Your task to perform on an android device: Add lenovo thinkpad to the cart on costco, then select checkout. Image 0: 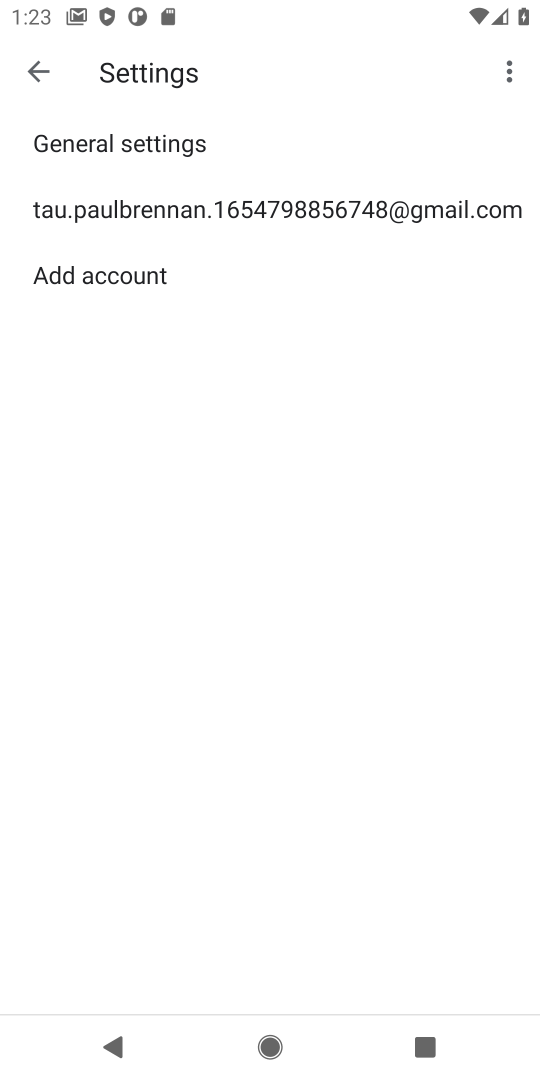
Step 0: press home button
Your task to perform on an android device: Add lenovo thinkpad to the cart on costco, then select checkout. Image 1: 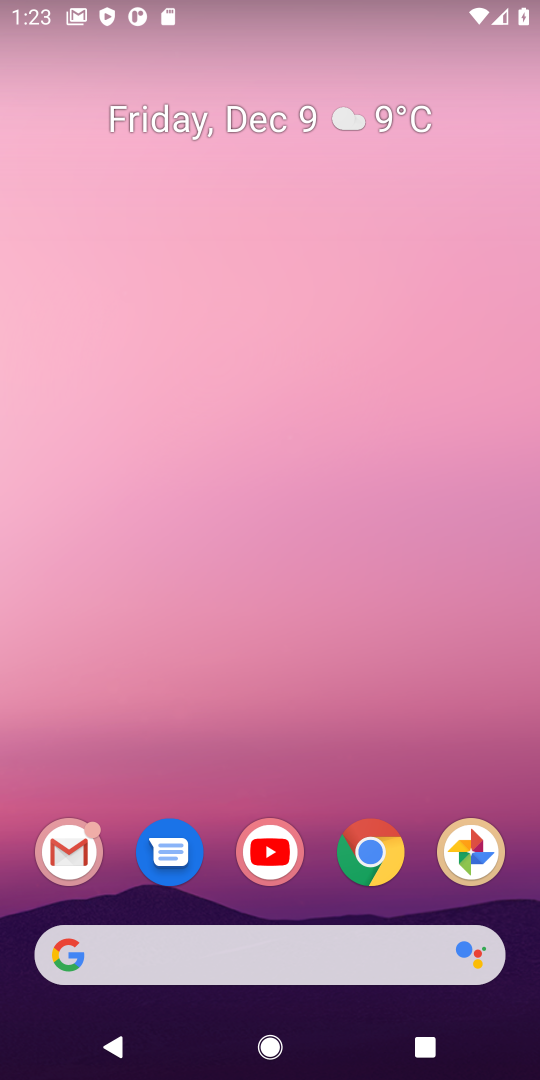
Step 1: click (385, 859)
Your task to perform on an android device: Add lenovo thinkpad to the cart on costco, then select checkout. Image 2: 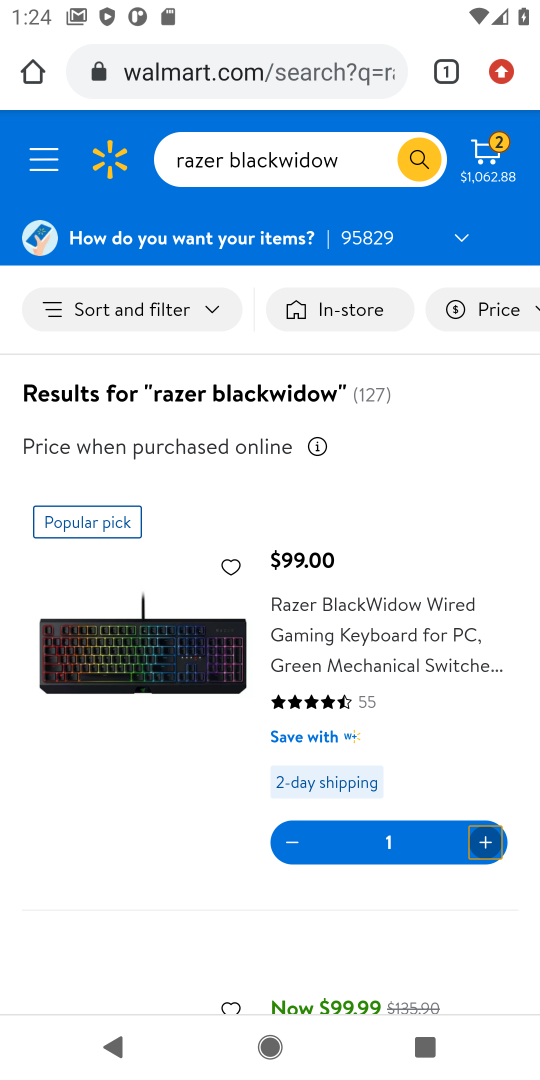
Step 2: click (176, 82)
Your task to perform on an android device: Add lenovo thinkpad to the cart on costco, then select checkout. Image 3: 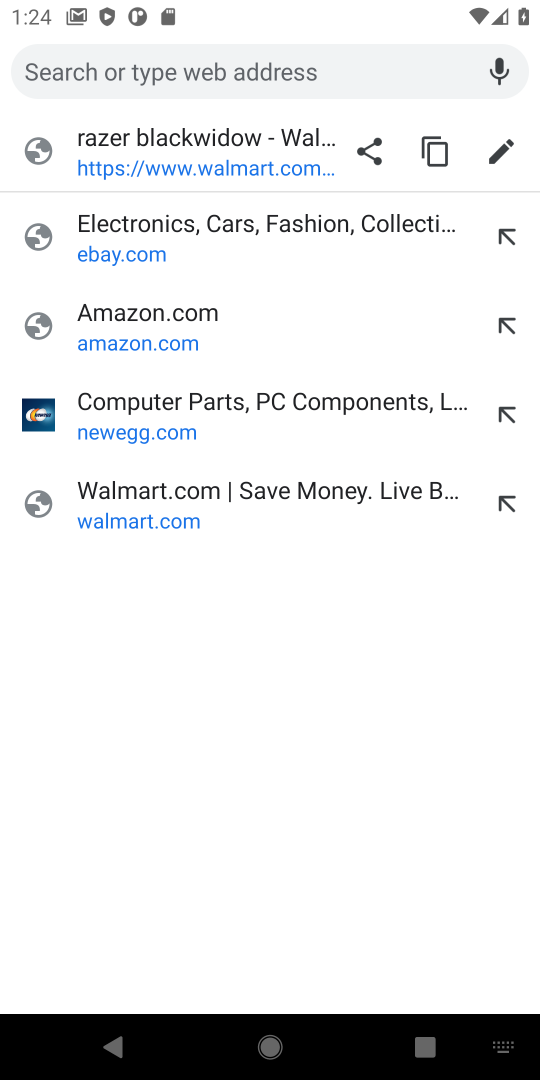
Step 3: type "costco"
Your task to perform on an android device: Add lenovo thinkpad to the cart on costco, then select checkout. Image 4: 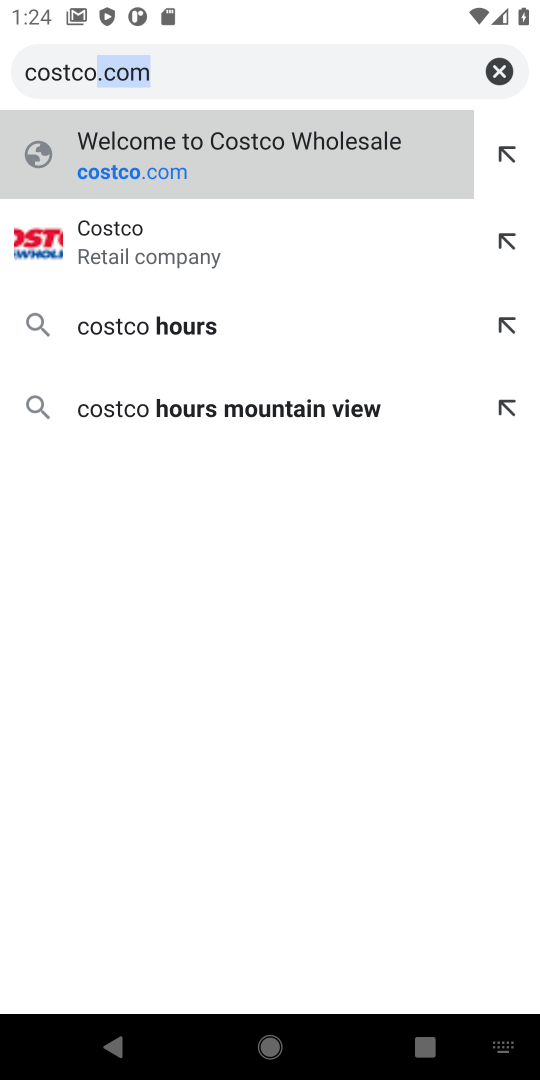
Step 4: press enter
Your task to perform on an android device: Add lenovo thinkpad to the cart on costco, then select checkout. Image 5: 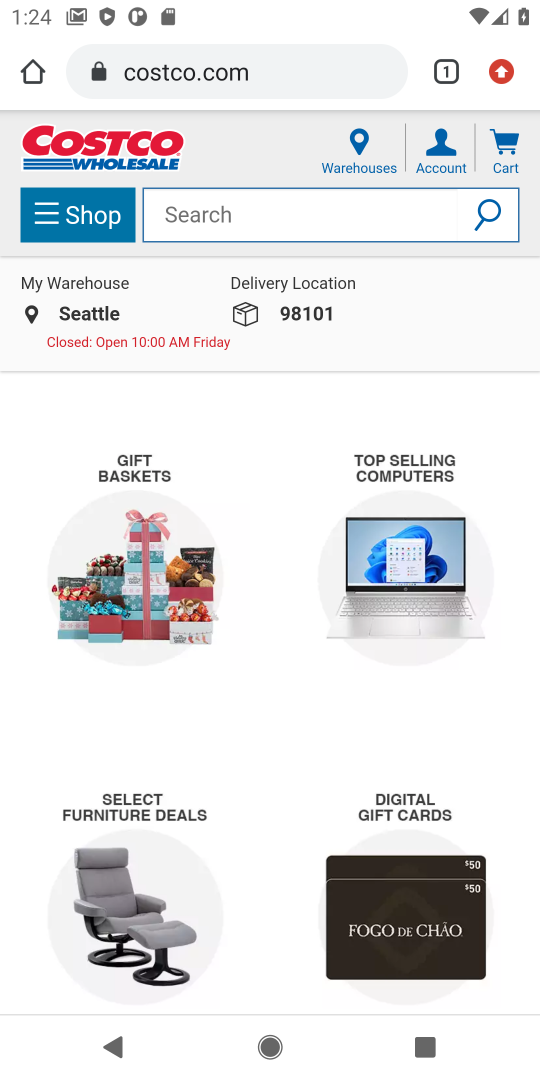
Step 5: click (248, 218)
Your task to perform on an android device: Add lenovo thinkpad to the cart on costco, then select checkout. Image 6: 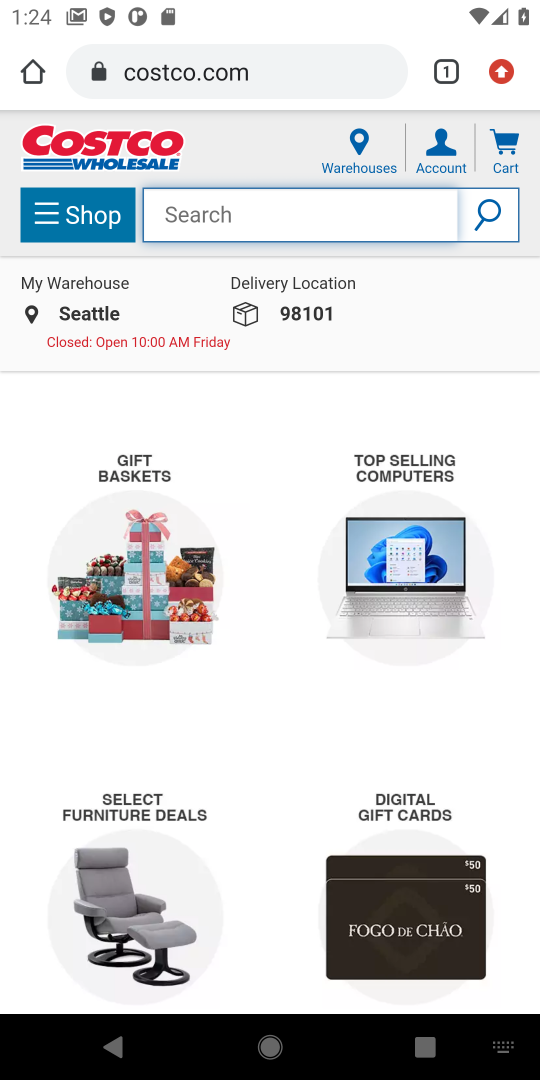
Step 6: type "lenovo thinkpad"
Your task to perform on an android device: Add lenovo thinkpad to the cart on costco, then select checkout. Image 7: 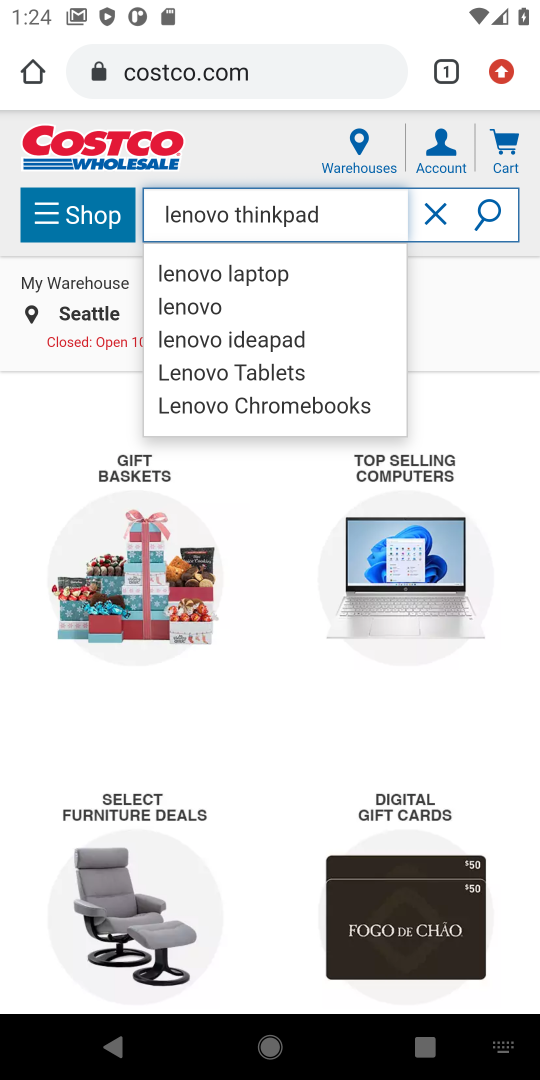
Step 7: press enter
Your task to perform on an android device: Add lenovo thinkpad to the cart on costco, then select checkout. Image 8: 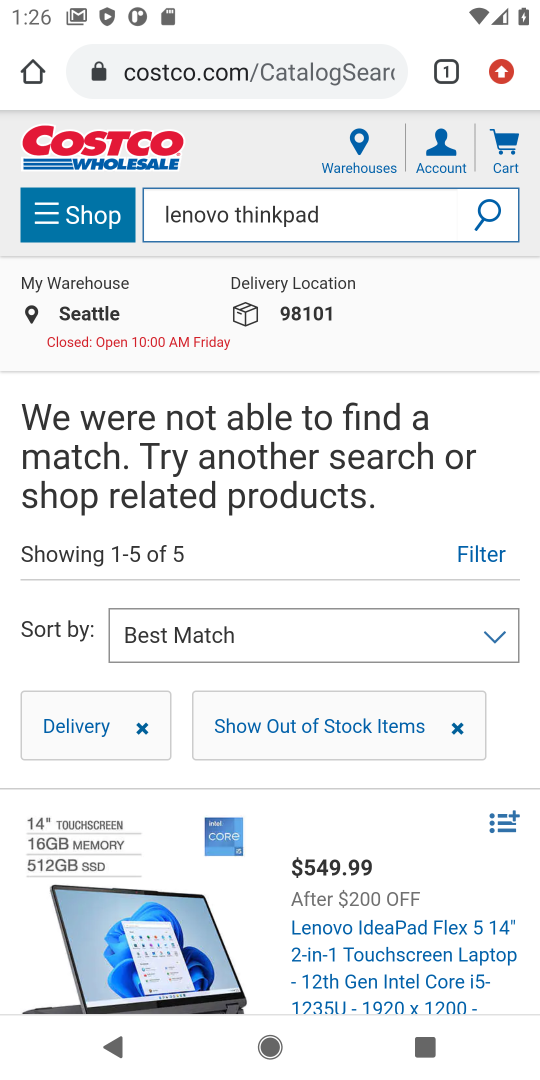
Step 8: click (417, 895)
Your task to perform on an android device: Add lenovo thinkpad to the cart on costco, then select checkout. Image 9: 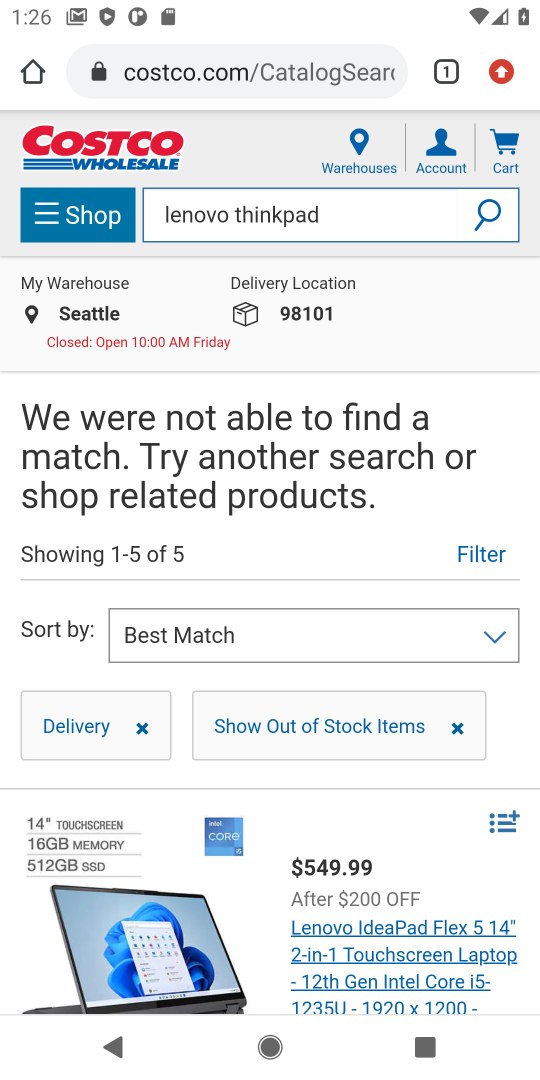
Step 9: task complete